Your task to perform on an android device: Open the web browser Image 0: 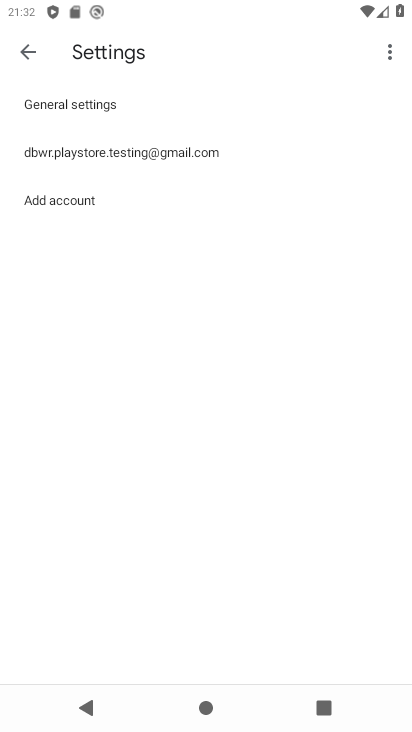
Step 0: press home button
Your task to perform on an android device: Open the web browser Image 1: 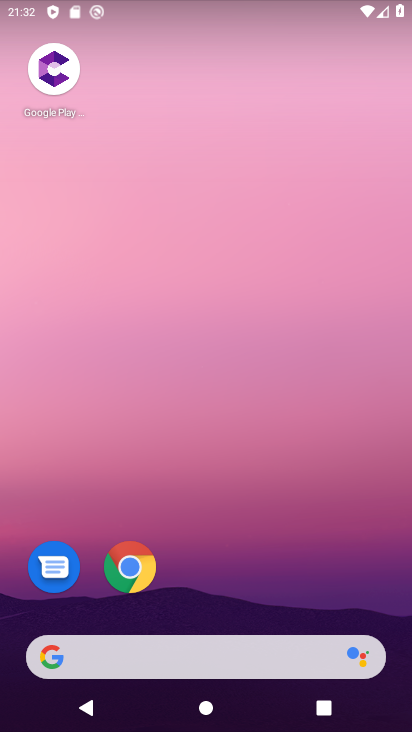
Step 1: click (129, 571)
Your task to perform on an android device: Open the web browser Image 2: 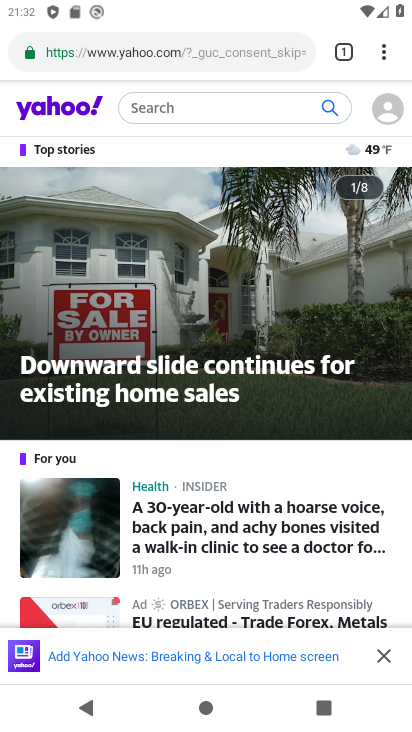
Step 2: task complete